Your task to perform on an android device: Go to notification settings Image 0: 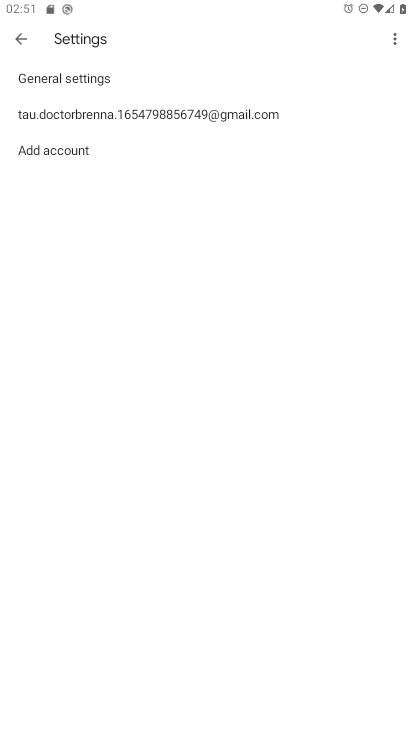
Step 0: press home button
Your task to perform on an android device: Go to notification settings Image 1: 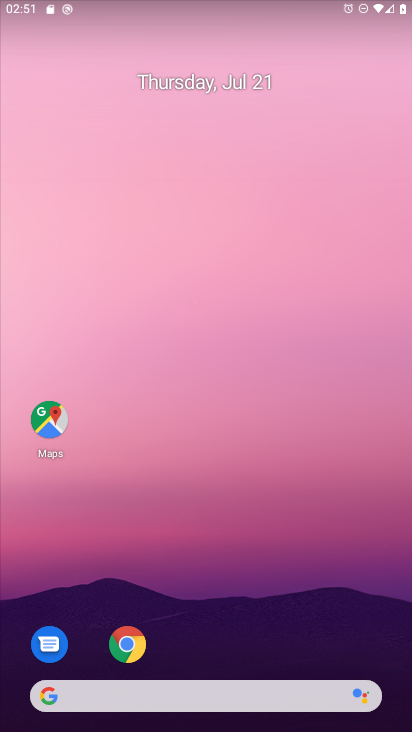
Step 1: drag from (188, 680) to (188, 240)
Your task to perform on an android device: Go to notification settings Image 2: 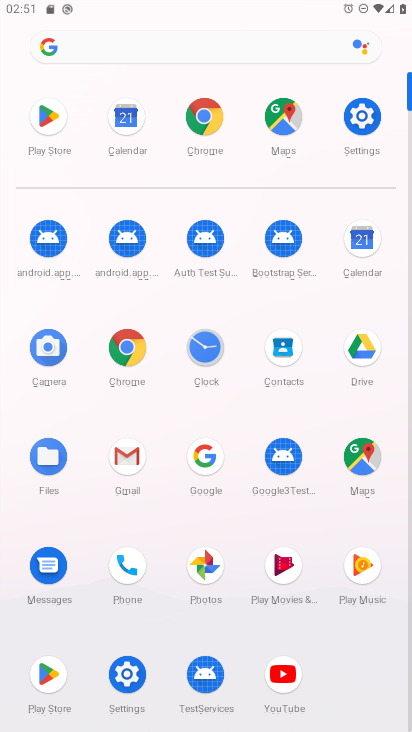
Step 2: click (355, 123)
Your task to perform on an android device: Go to notification settings Image 3: 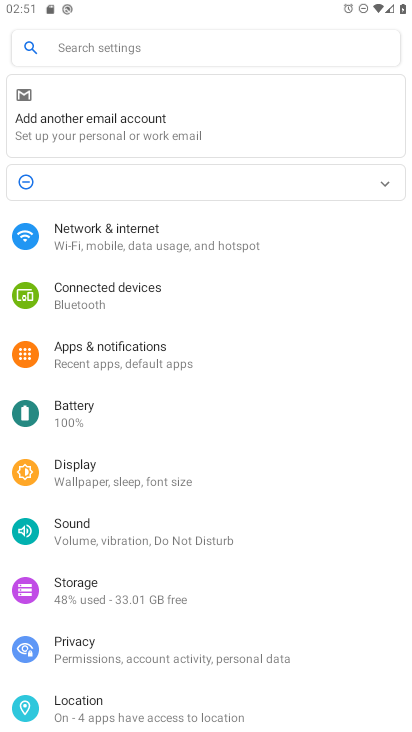
Step 3: click (70, 360)
Your task to perform on an android device: Go to notification settings Image 4: 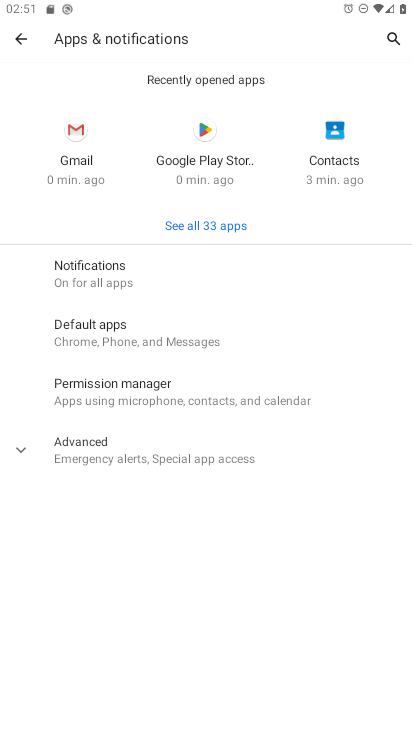
Step 4: click (77, 445)
Your task to perform on an android device: Go to notification settings Image 5: 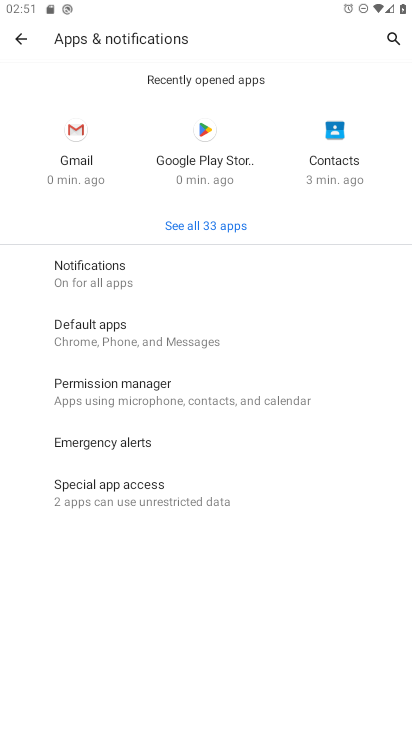
Step 5: task complete